Your task to perform on an android device: Open Youtube and go to "Your channel" Image 0: 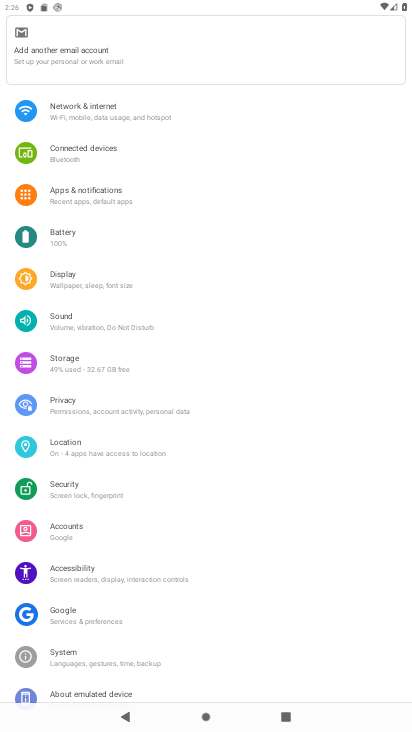
Step 0: press home button
Your task to perform on an android device: Open Youtube and go to "Your channel" Image 1: 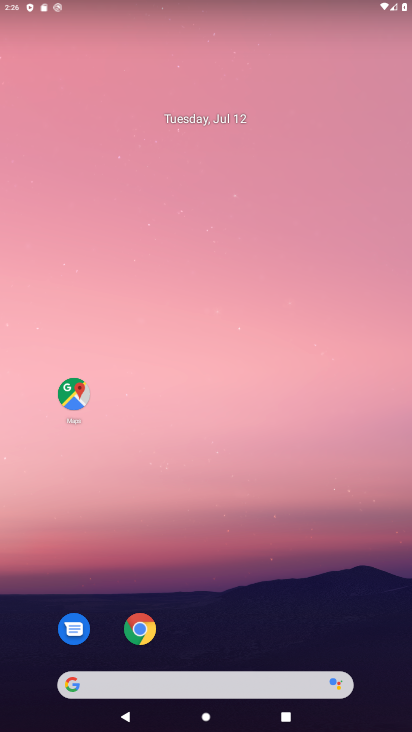
Step 1: drag from (183, 687) to (274, 204)
Your task to perform on an android device: Open Youtube and go to "Your channel" Image 2: 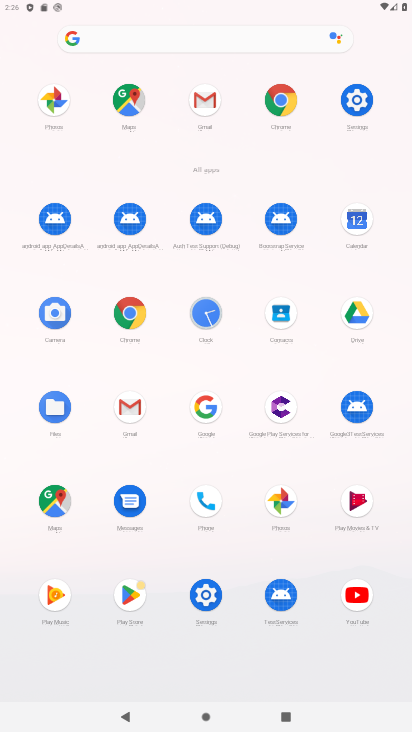
Step 2: click (357, 593)
Your task to perform on an android device: Open Youtube and go to "Your channel" Image 3: 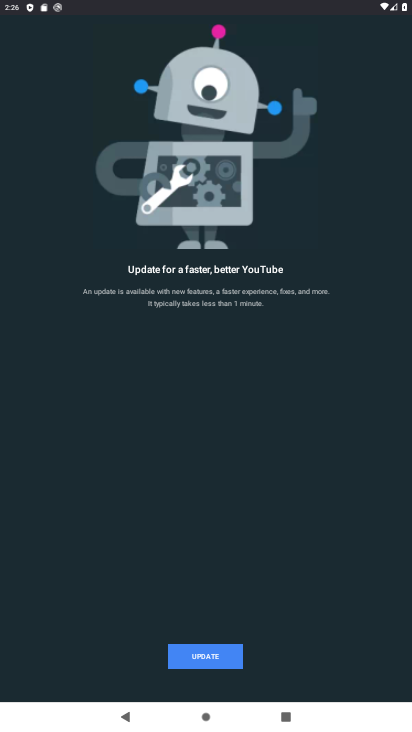
Step 3: click (198, 663)
Your task to perform on an android device: Open Youtube and go to "Your channel" Image 4: 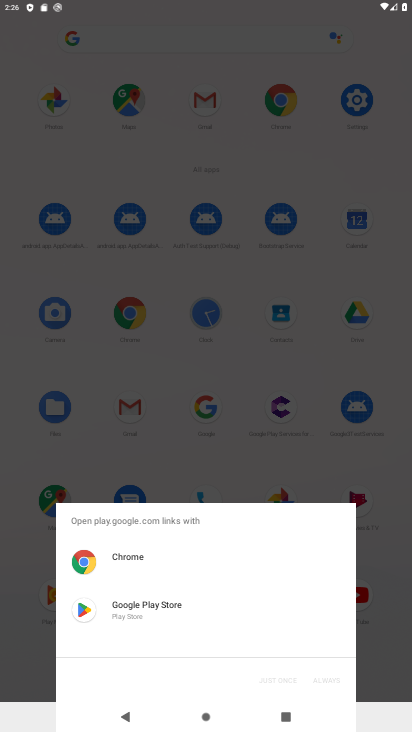
Step 4: click (148, 601)
Your task to perform on an android device: Open Youtube and go to "Your channel" Image 5: 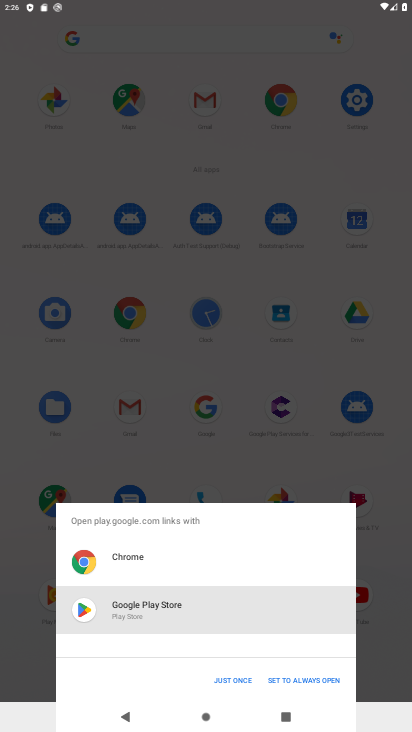
Step 5: click (225, 680)
Your task to perform on an android device: Open Youtube and go to "Your channel" Image 6: 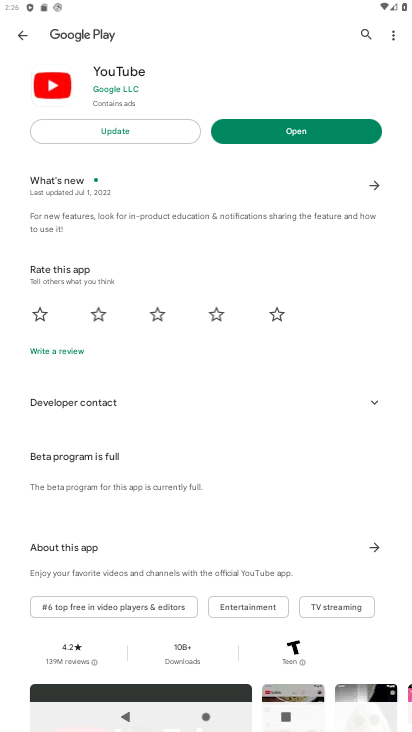
Step 6: click (147, 131)
Your task to perform on an android device: Open Youtube and go to "Your channel" Image 7: 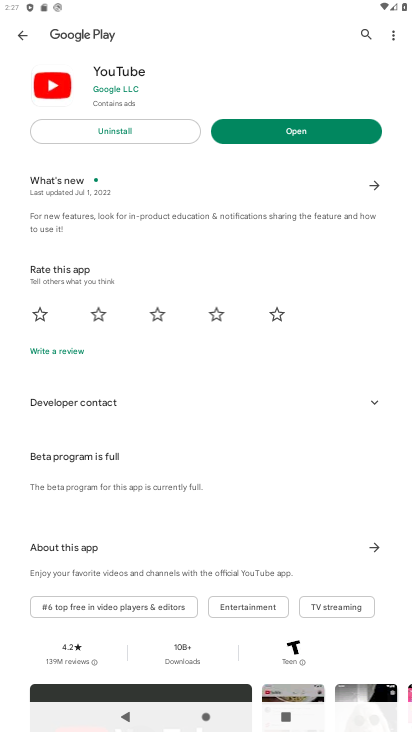
Step 7: click (301, 129)
Your task to perform on an android device: Open Youtube and go to "Your channel" Image 8: 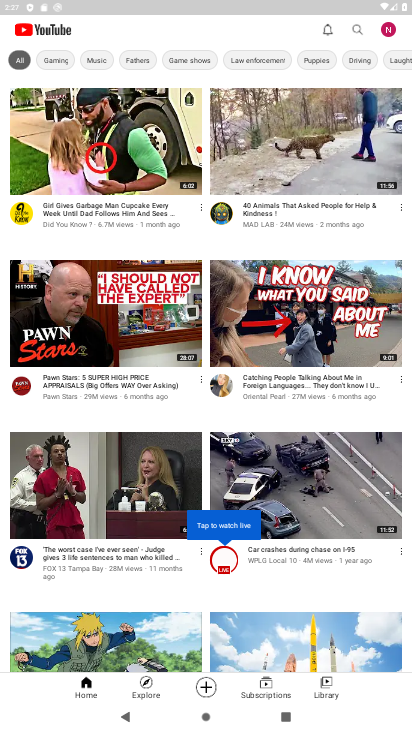
Step 8: click (390, 29)
Your task to perform on an android device: Open Youtube and go to "Your channel" Image 9: 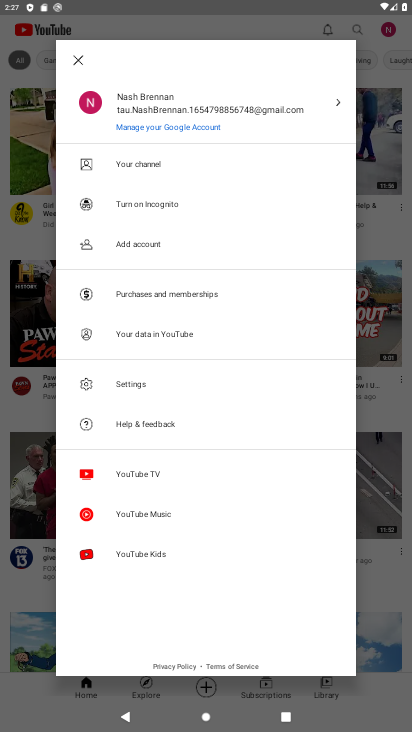
Step 9: click (152, 165)
Your task to perform on an android device: Open Youtube and go to "Your channel" Image 10: 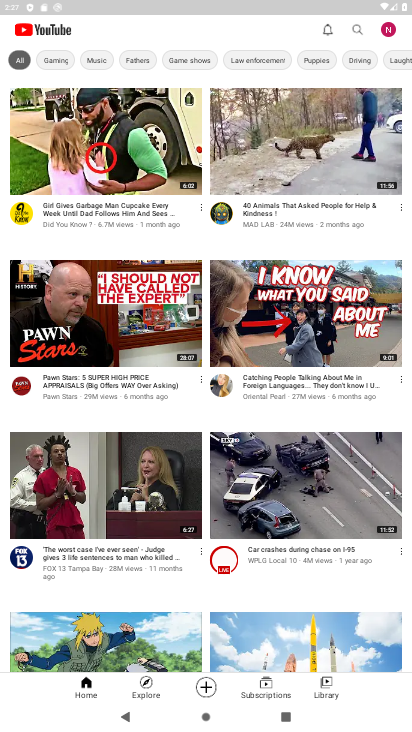
Step 10: task complete